Your task to perform on an android device: When is my next appointment? Image 0: 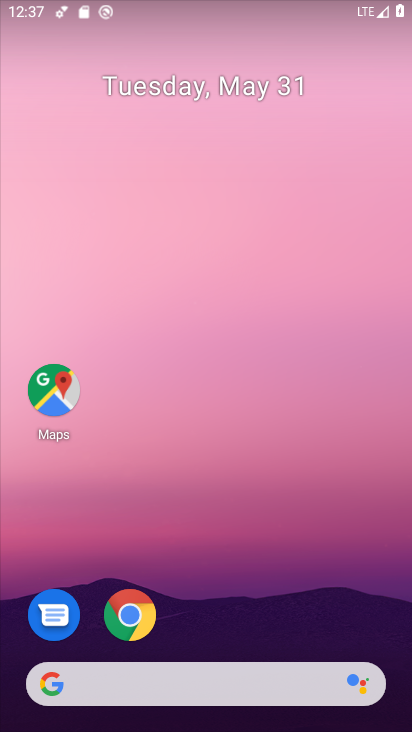
Step 0: drag from (250, 611) to (257, 19)
Your task to perform on an android device: When is my next appointment? Image 1: 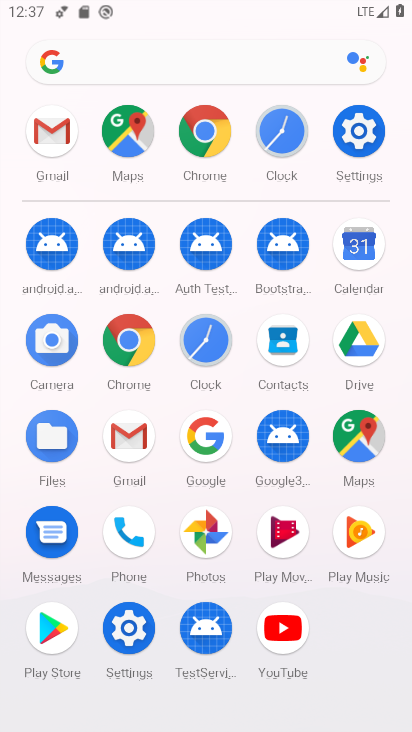
Step 1: click (376, 251)
Your task to perform on an android device: When is my next appointment? Image 2: 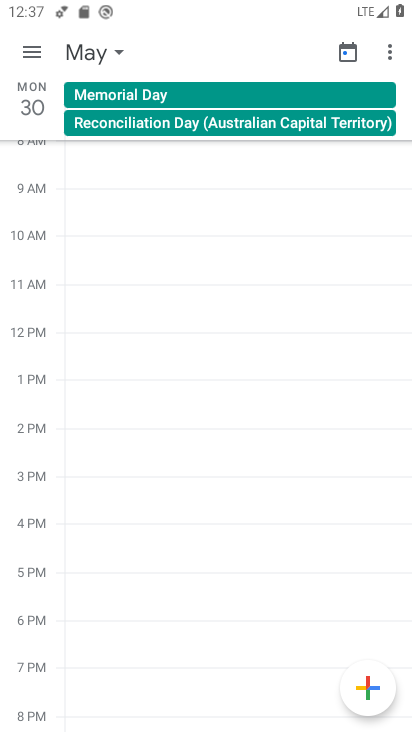
Step 2: click (23, 47)
Your task to perform on an android device: When is my next appointment? Image 3: 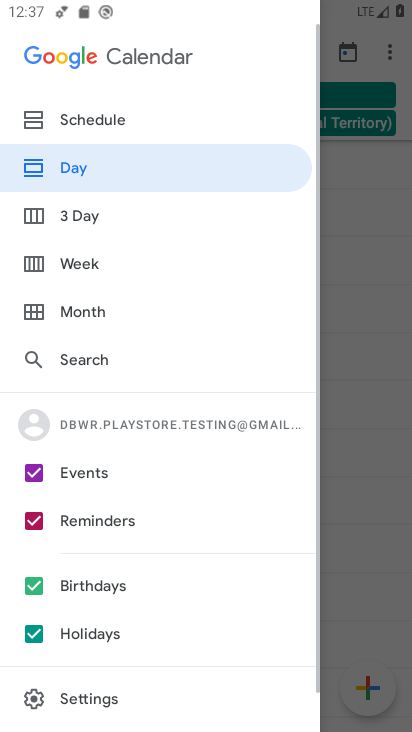
Step 3: click (111, 116)
Your task to perform on an android device: When is my next appointment? Image 4: 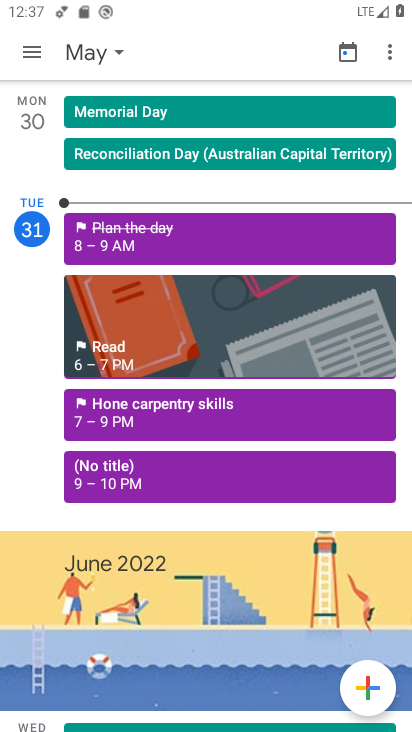
Step 4: task complete